Your task to perform on an android device: Open Reddit.com Image 0: 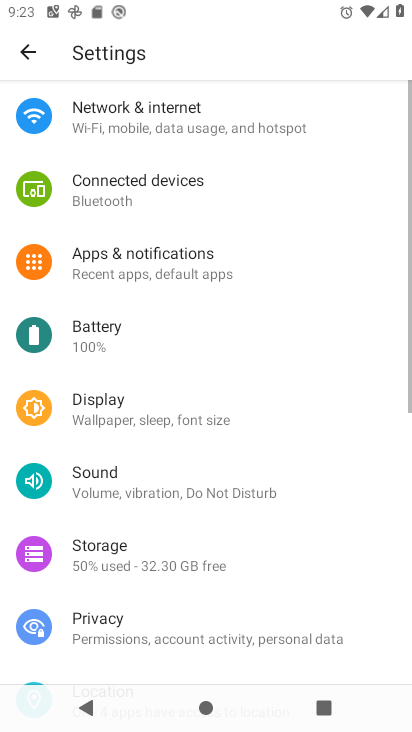
Step 0: press home button
Your task to perform on an android device: Open Reddit.com Image 1: 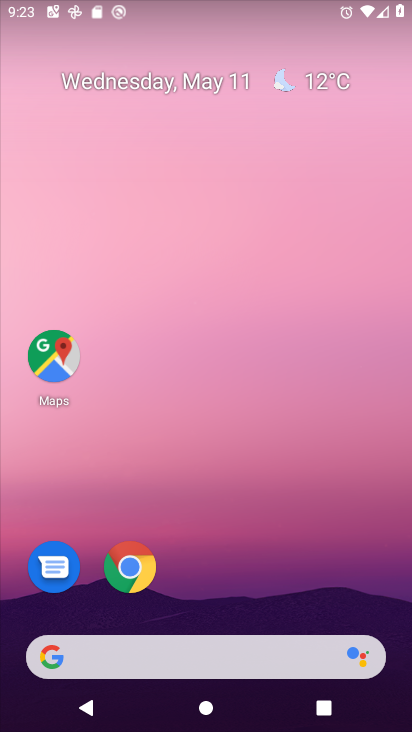
Step 1: click (127, 576)
Your task to perform on an android device: Open Reddit.com Image 2: 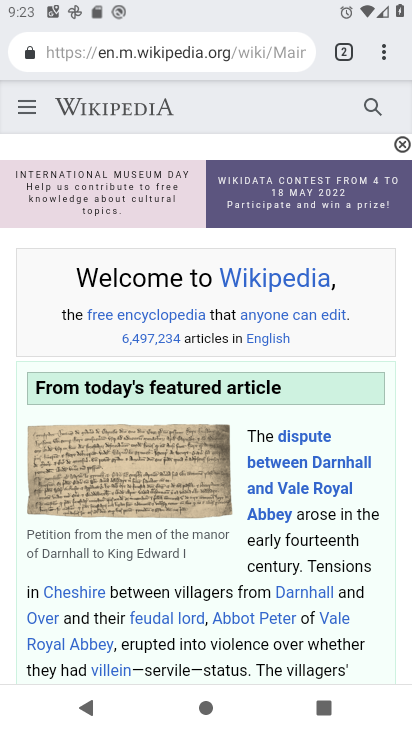
Step 2: click (348, 47)
Your task to perform on an android device: Open Reddit.com Image 3: 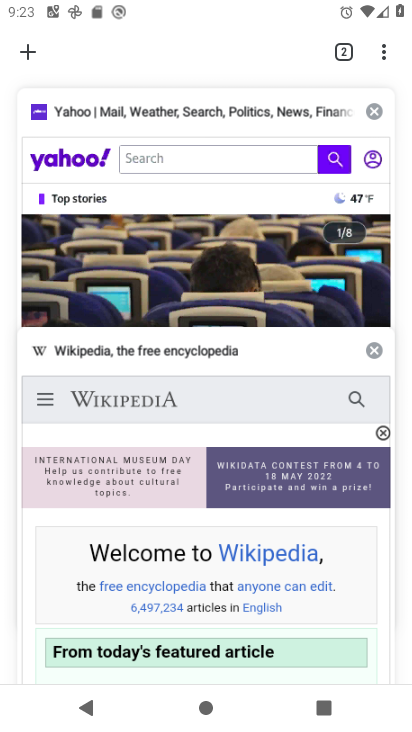
Step 3: click (23, 55)
Your task to perform on an android device: Open Reddit.com Image 4: 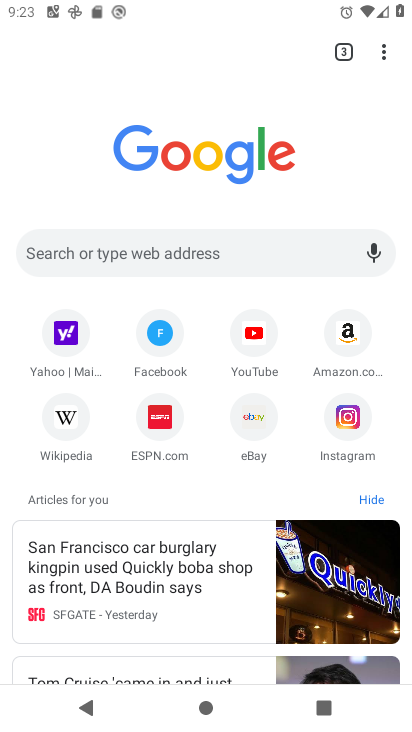
Step 4: click (139, 247)
Your task to perform on an android device: Open Reddit.com Image 5: 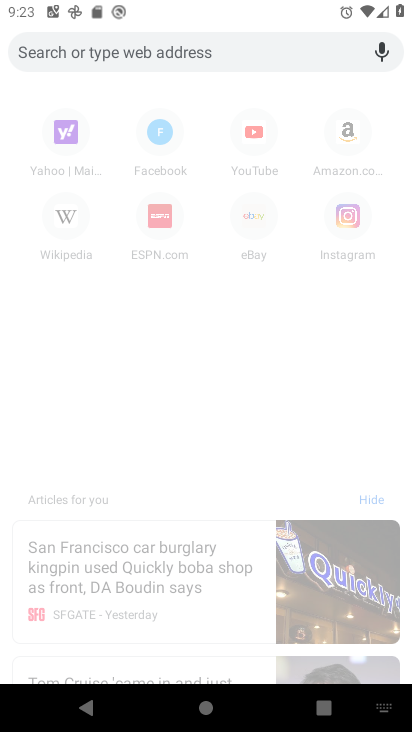
Step 5: type "Reddit.com"
Your task to perform on an android device: Open Reddit.com Image 6: 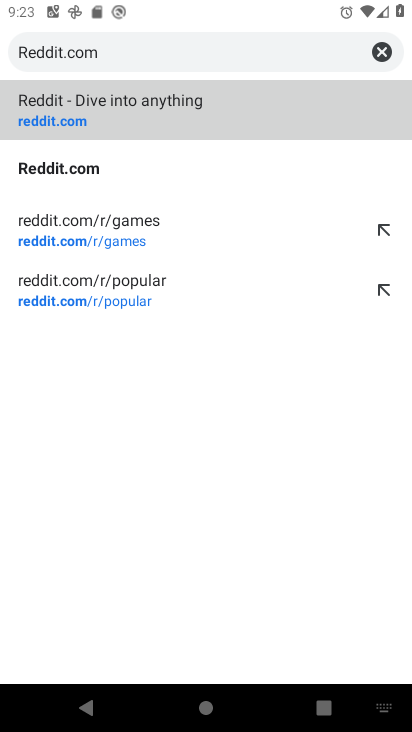
Step 6: click (83, 116)
Your task to perform on an android device: Open Reddit.com Image 7: 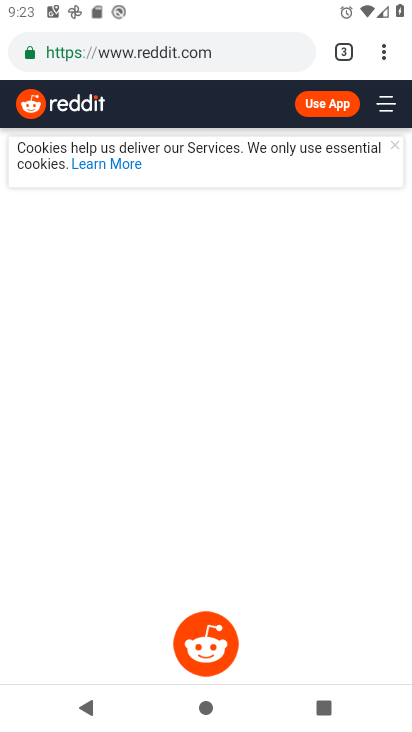
Step 7: task complete